Your task to perform on an android device: turn off sleep mode Image 0: 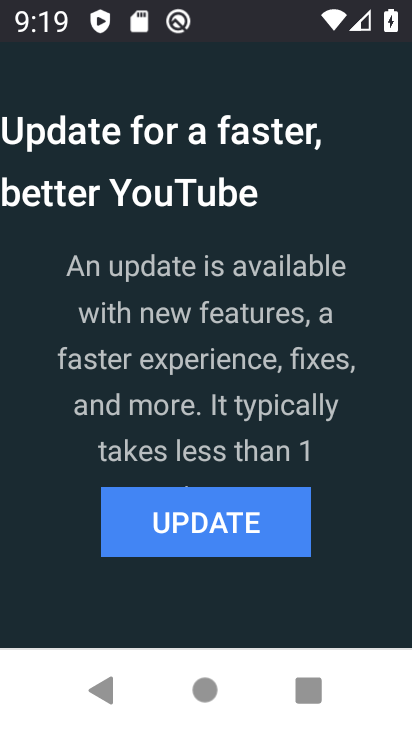
Step 0: press back button
Your task to perform on an android device: turn off sleep mode Image 1: 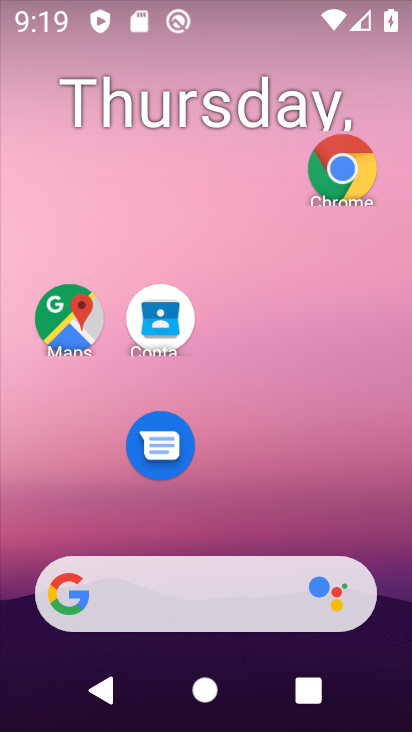
Step 1: drag from (245, 623) to (371, 331)
Your task to perform on an android device: turn off sleep mode Image 2: 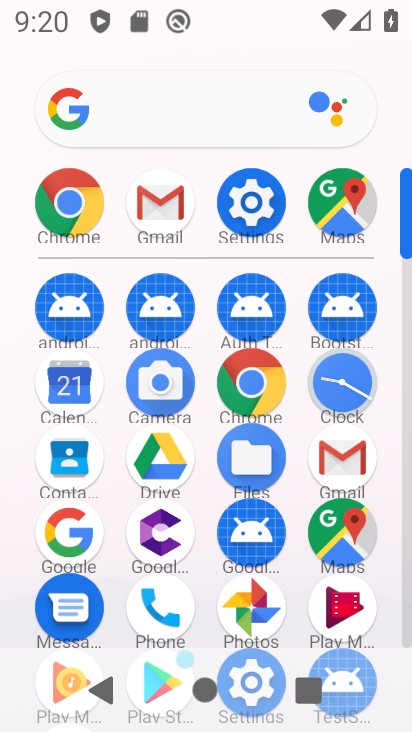
Step 2: click (255, 206)
Your task to perform on an android device: turn off sleep mode Image 3: 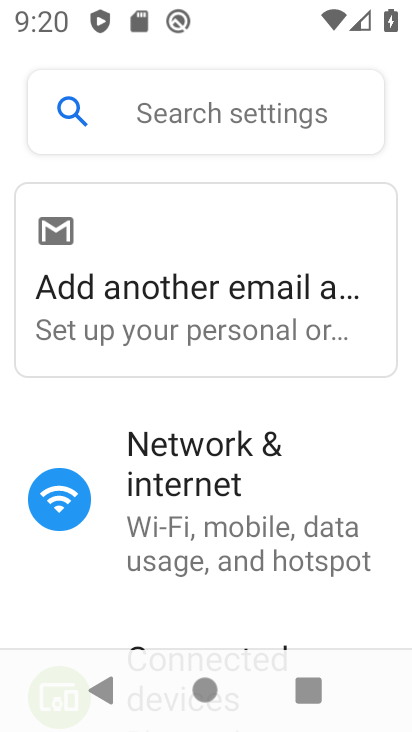
Step 3: click (210, 109)
Your task to perform on an android device: turn off sleep mode Image 4: 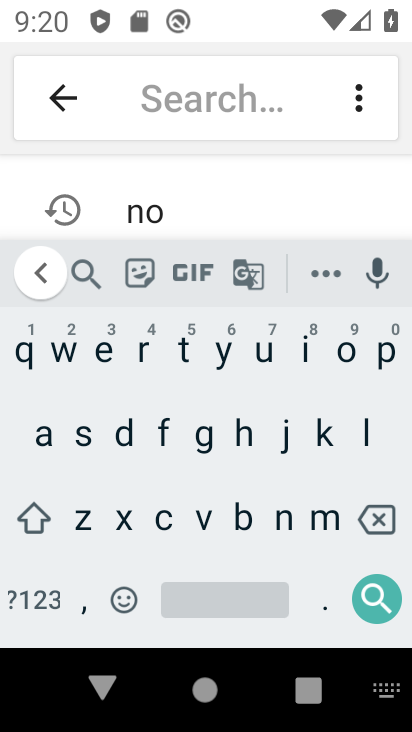
Step 4: click (93, 438)
Your task to perform on an android device: turn off sleep mode Image 5: 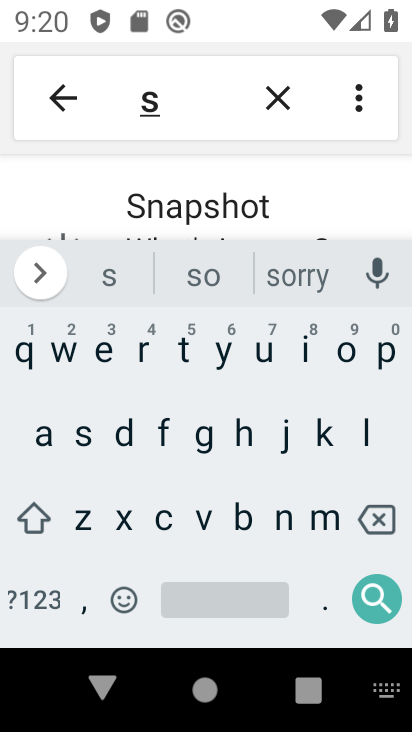
Step 5: click (368, 438)
Your task to perform on an android device: turn off sleep mode Image 6: 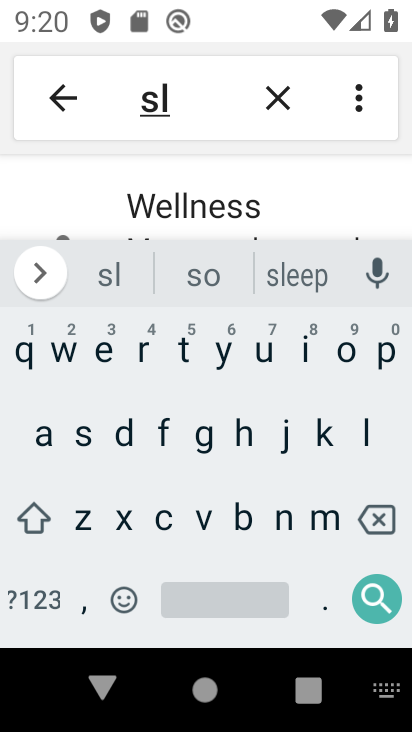
Step 6: click (109, 347)
Your task to perform on an android device: turn off sleep mode Image 7: 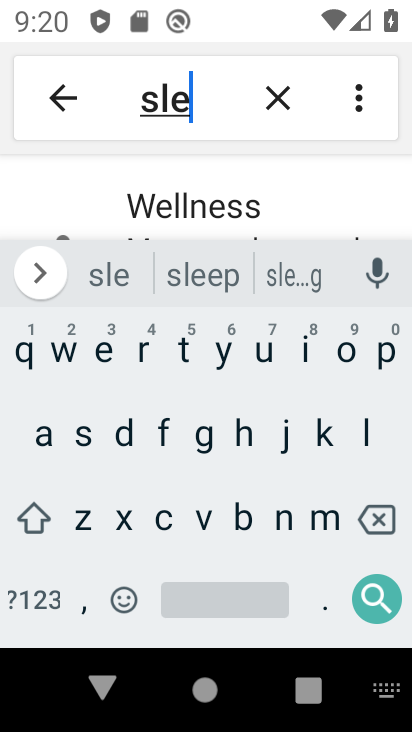
Step 7: click (170, 224)
Your task to perform on an android device: turn off sleep mode Image 8: 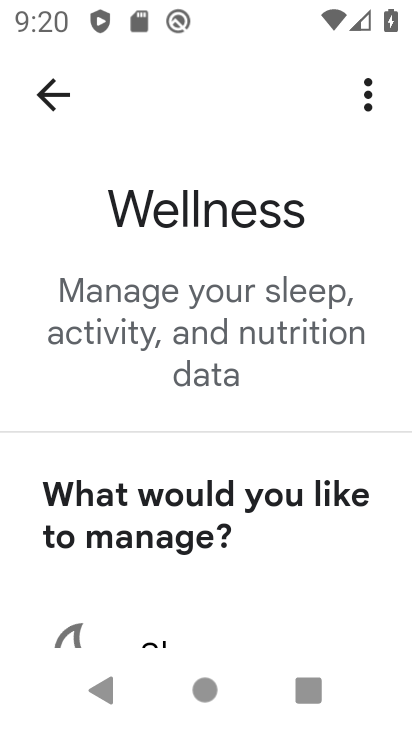
Step 8: drag from (237, 512) to (282, 304)
Your task to perform on an android device: turn off sleep mode Image 9: 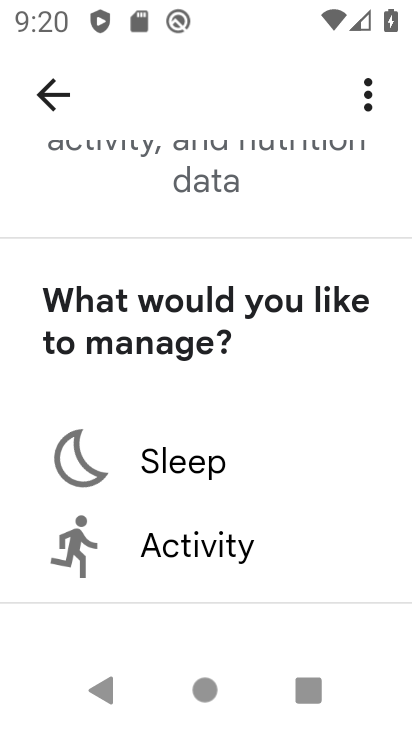
Step 9: click (197, 466)
Your task to perform on an android device: turn off sleep mode Image 10: 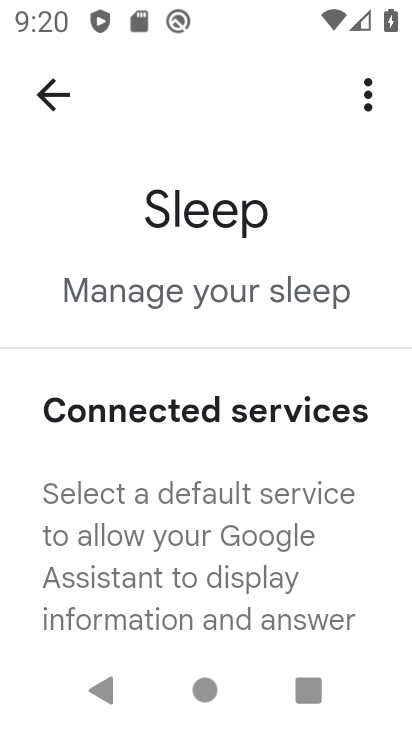
Step 10: task complete